Your task to perform on an android device: Open sound settings Image 0: 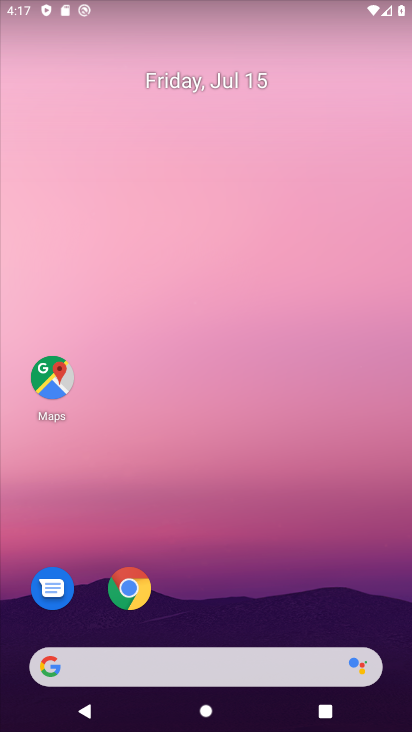
Step 0: drag from (83, 579) to (275, 104)
Your task to perform on an android device: Open sound settings Image 1: 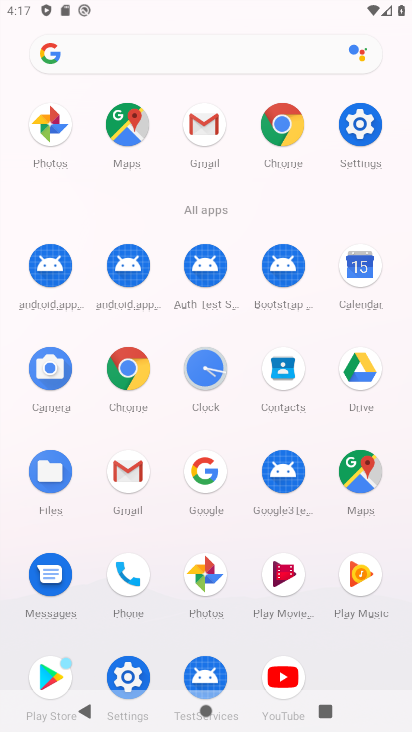
Step 1: click (105, 701)
Your task to perform on an android device: Open sound settings Image 2: 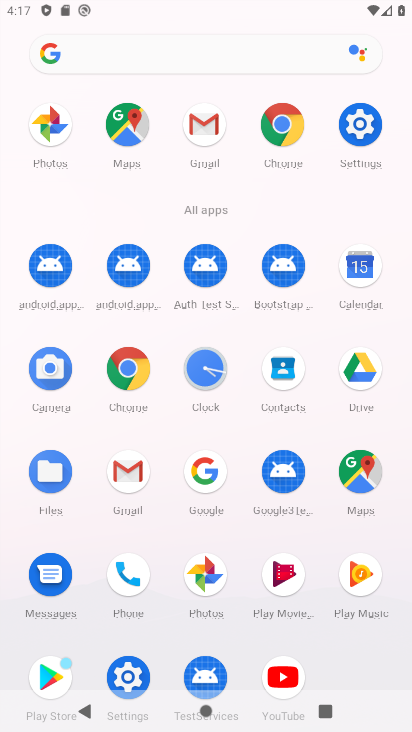
Step 2: click (114, 685)
Your task to perform on an android device: Open sound settings Image 3: 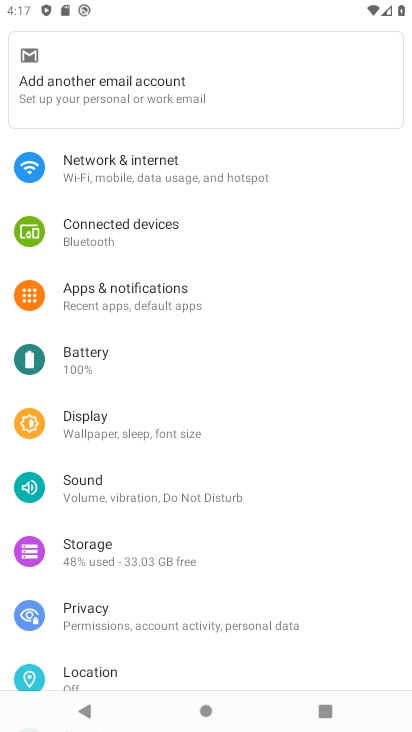
Step 3: click (125, 480)
Your task to perform on an android device: Open sound settings Image 4: 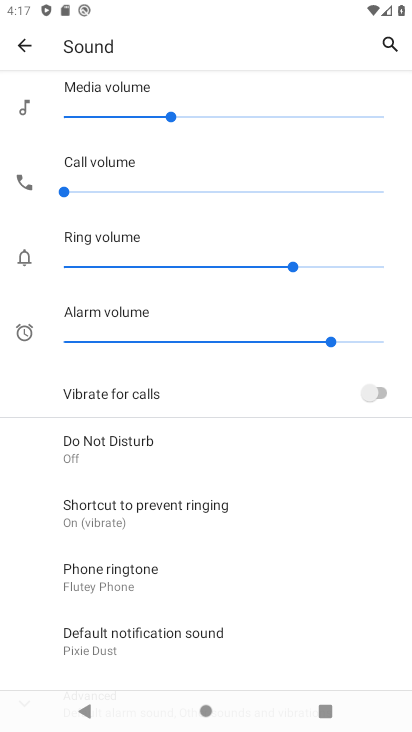
Step 4: task complete